Your task to perform on an android device: allow cookies in the chrome app Image 0: 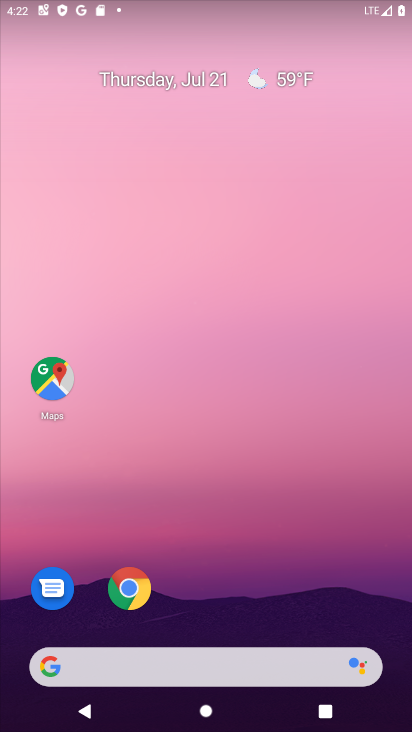
Step 0: click (128, 590)
Your task to perform on an android device: allow cookies in the chrome app Image 1: 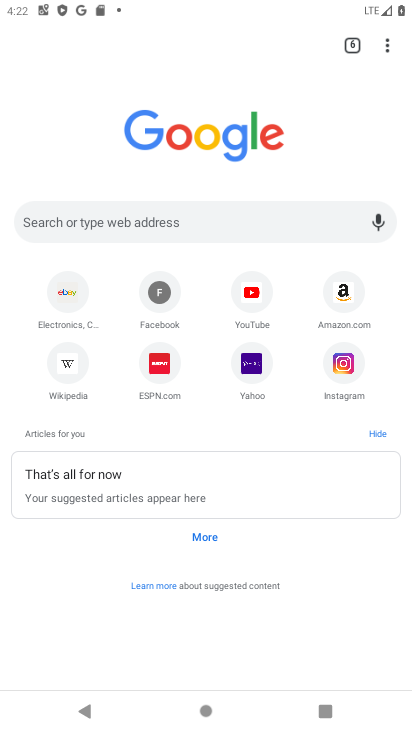
Step 1: click (387, 48)
Your task to perform on an android device: allow cookies in the chrome app Image 2: 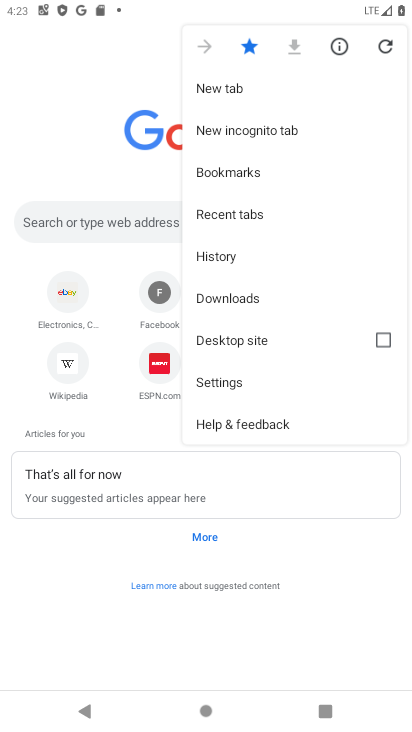
Step 2: click (220, 377)
Your task to perform on an android device: allow cookies in the chrome app Image 3: 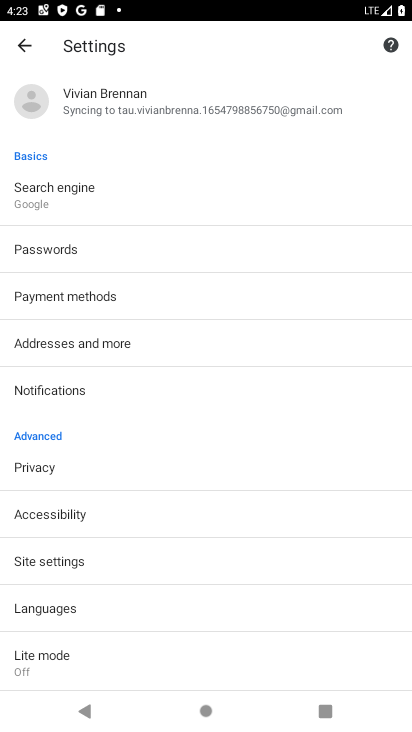
Step 3: click (67, 561)
Your task to perform on an android device: allow cookies in the chrome app Image 4: 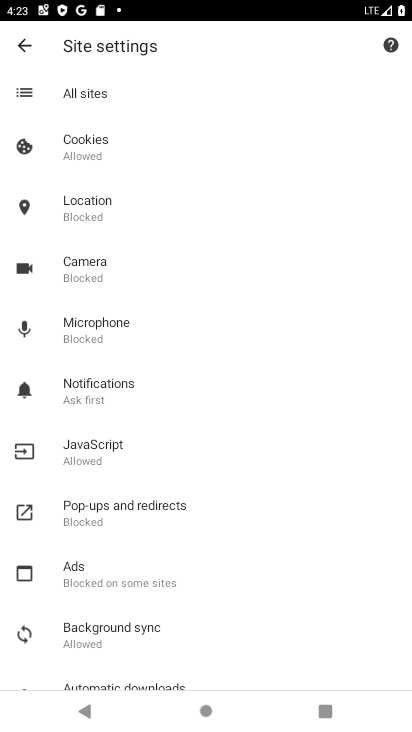
Step 4: click (88, 141)
Your task to perform on an android device: allow cookies in the chrome app Image 5: 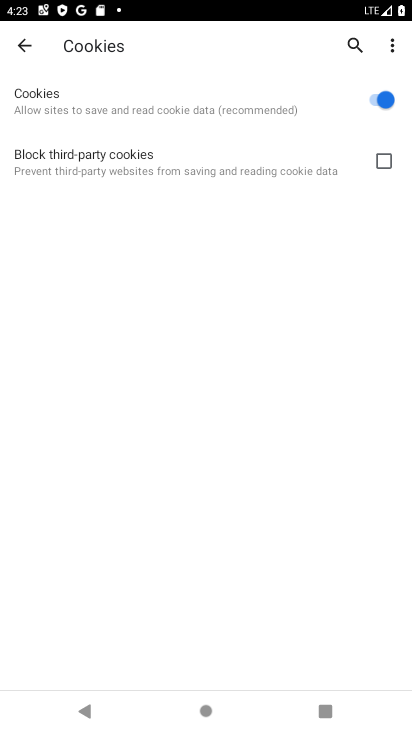
Step 5: task complete